Your task to perform on an android device: Search for Italian restaurants on Maps Image 0: 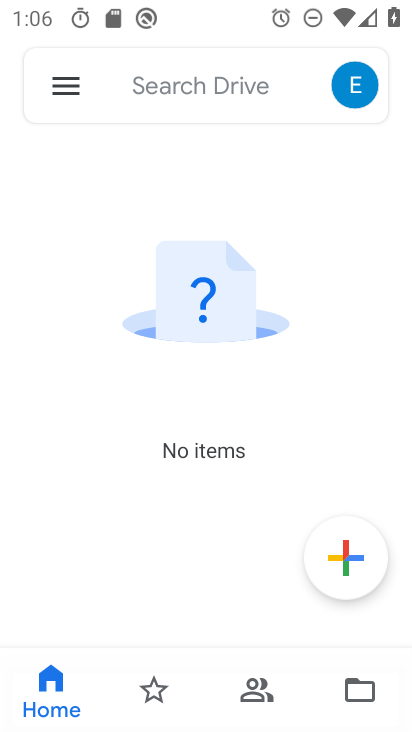
Step 0: press back button
Your task to perform on an android device: Search for Italian restaurants on Maps Image 1: 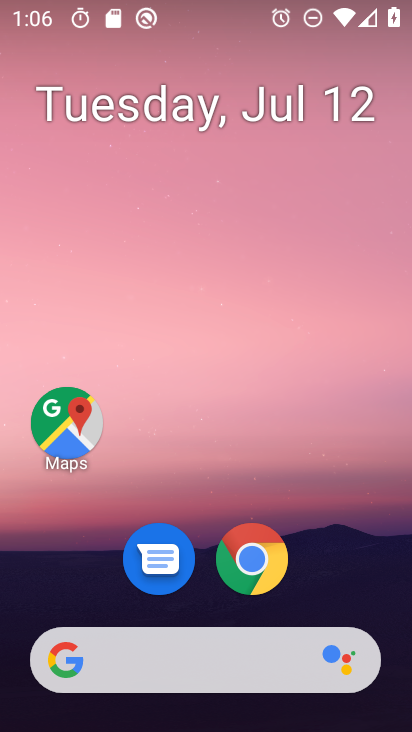
Step 1: click (105, 438)
Your task to perform on an android device: Search for Italian restaurants on Maps Image 2: 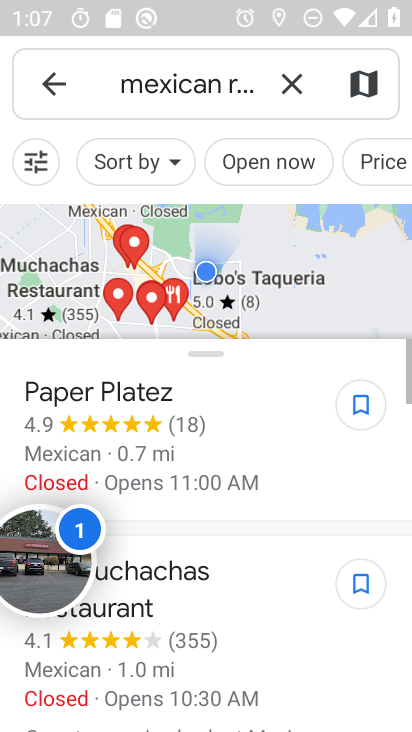
Step 2: click (296, 76)
Your task to perform on an android device: Search for Italian restaurants on Maps Image 3: 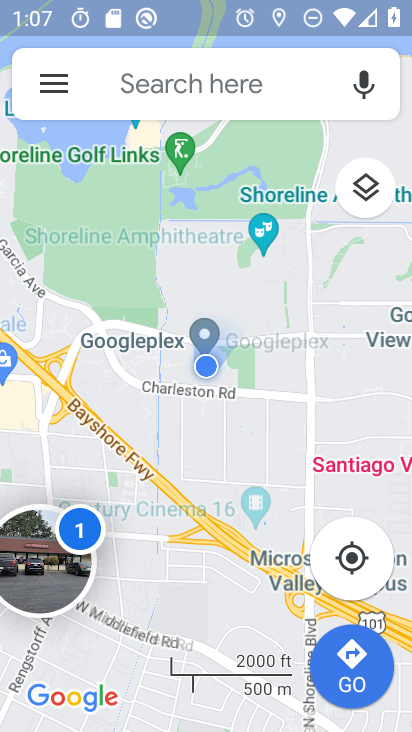
Step 3: click (182, 87)
Your task to perform on an android device: Search for Italian restaurants on Maps Image 4: 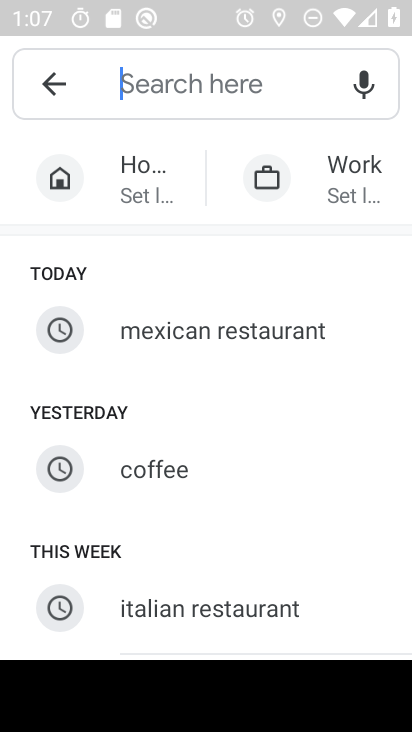
Step 4: click (163, 608)
Your task to perform on an android device: Search for Italian restaurants on Maps Image 5: 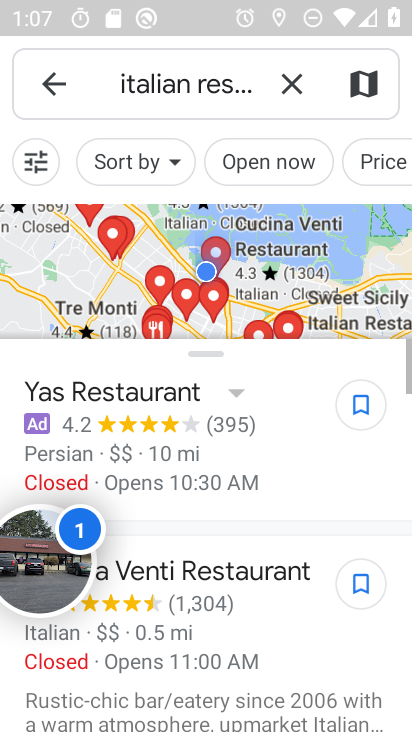
Step 5: task complete